Your task to perform on an android device: Open my contact list Image 0: 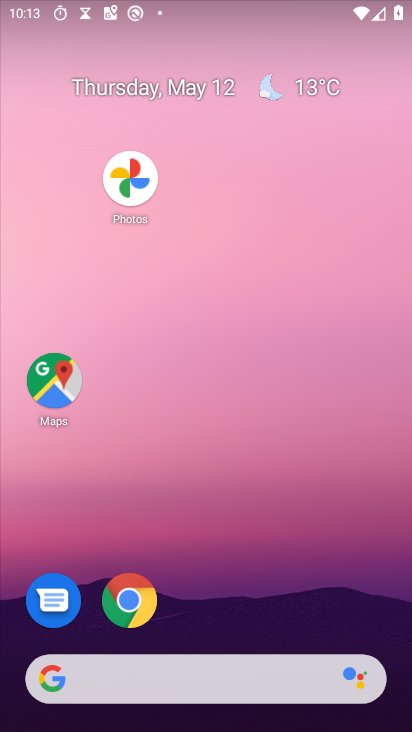
Step 0: drag from (249, 631) to (147, 0)
Your task to perform on an android device: Open my contact list Image 1: 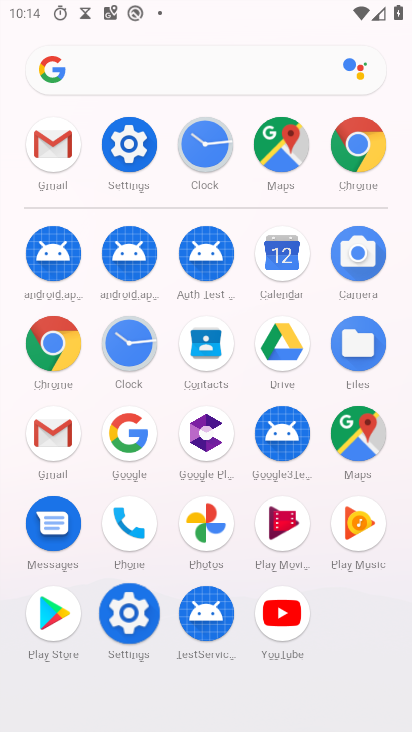
Step 1: click (211, 339)
Your task to perform on an android device: Open my contact list Image 2: 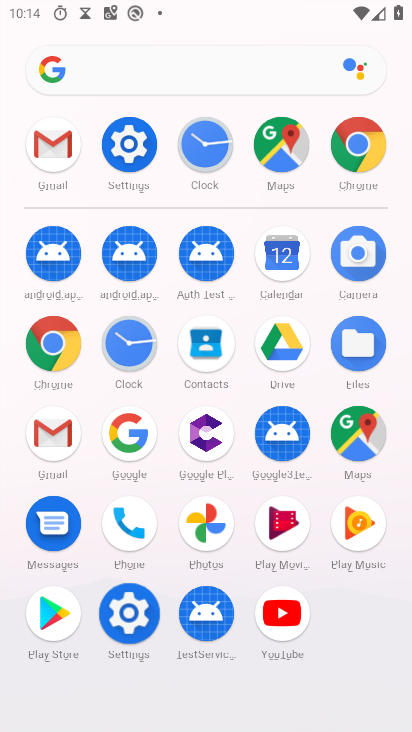
Step 2: click (208, 329)
Your task to perform on an android device: Open my contact list Image 3: 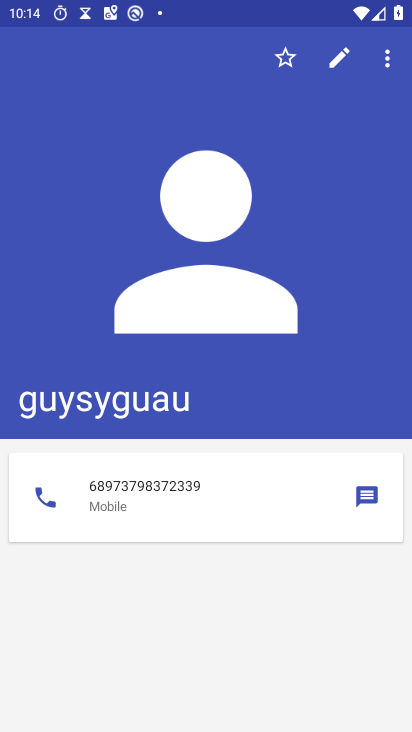
Step 3: task complete